Your task to perform on an android device: empty trash in google photos Image 0: 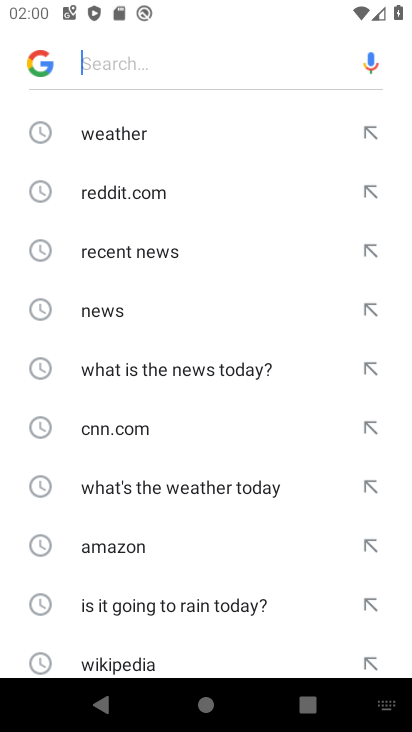
Step 0: drag from (161, 558) to (267, 223)
Your task to perform on an android device: empty trash in google photos Image 1: 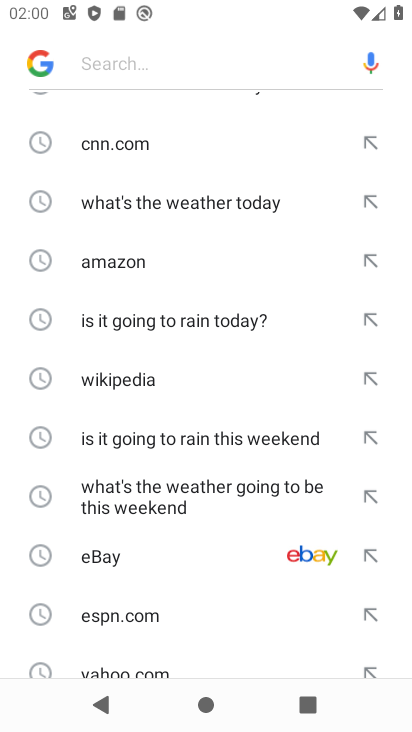
Step 1: press home button
Your task to perform on an android device: empty trash in google photos Image 2: 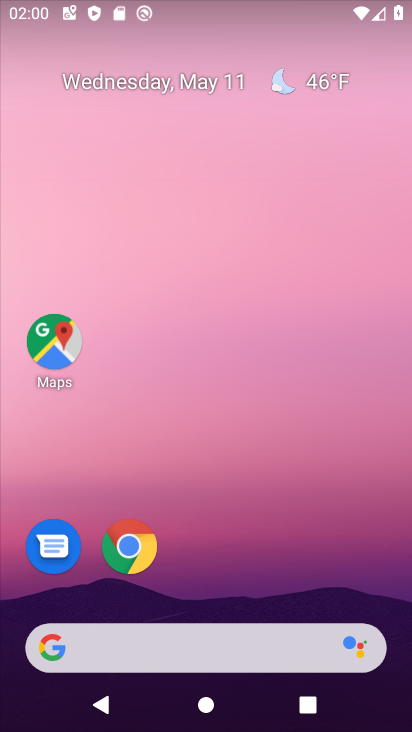
Step 2: drag from (174, 590) to (199, 285)
Your task to perform on an android device: empty trash in google photos Image 3: 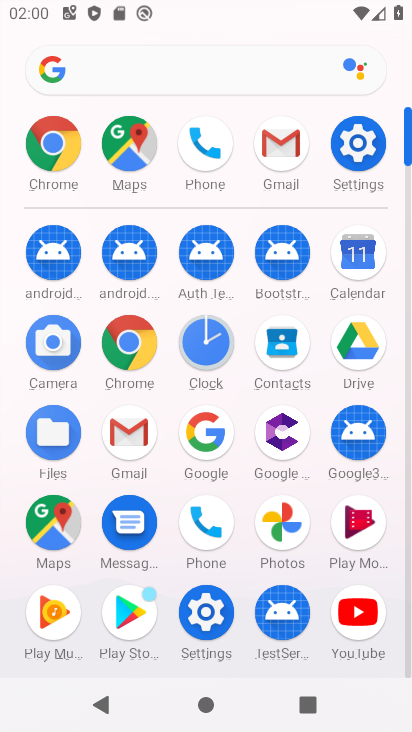
Step 3: click (287, 526)
Your task to perform on an android device: empty trash in google photos Image 4: 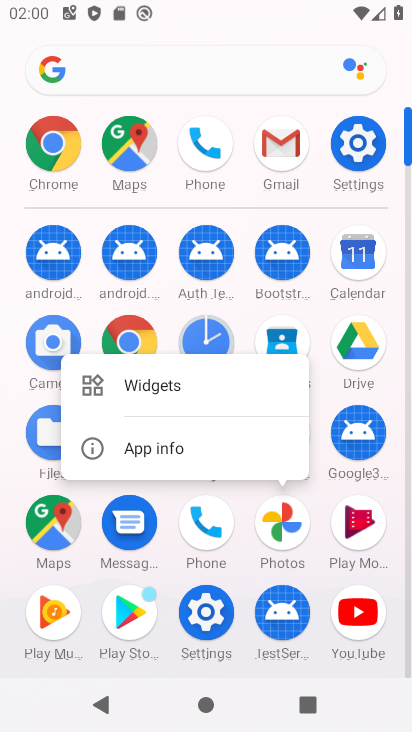
Step 4: click (128, 448)
Your task to perform on an android device: empty trash in google photos Image 5: 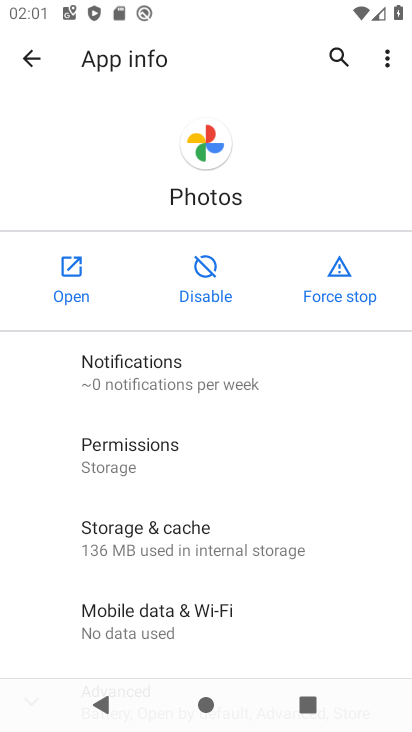
Step 5: click (71, 298)
Your task to perform on an android device: empty trash in google photos Image 6: 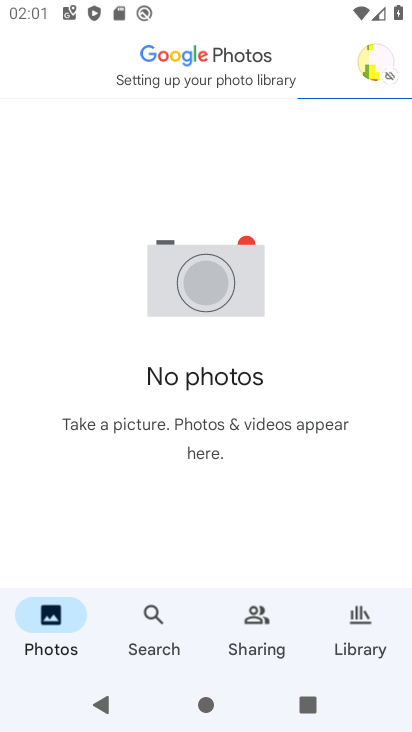
Step 6: click (358, 609)
Your task to perform on an android device: empty trash in google photos Image 7: 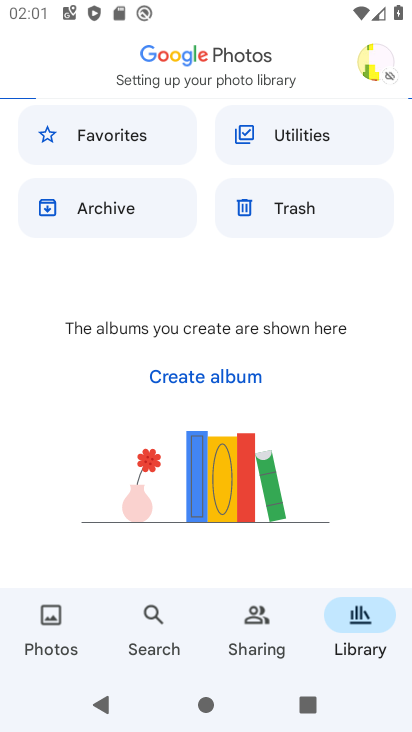
Step 7: click (278, 216)
Your task to perform on an android device: empty trash in google photos Image 8: 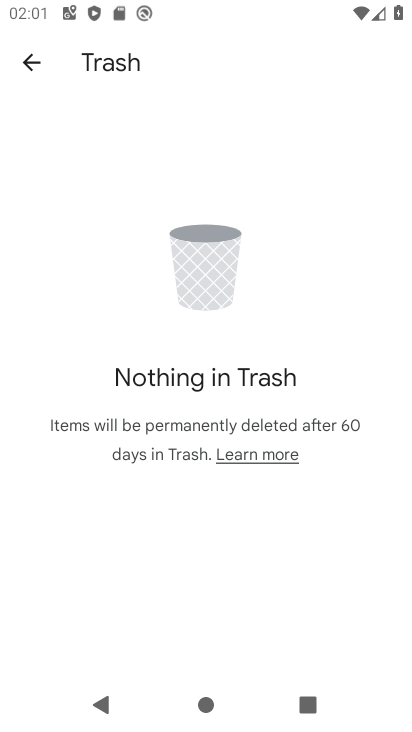
Step 8: task complete